Your task to perform on an android device: Open internet settings Image 0: 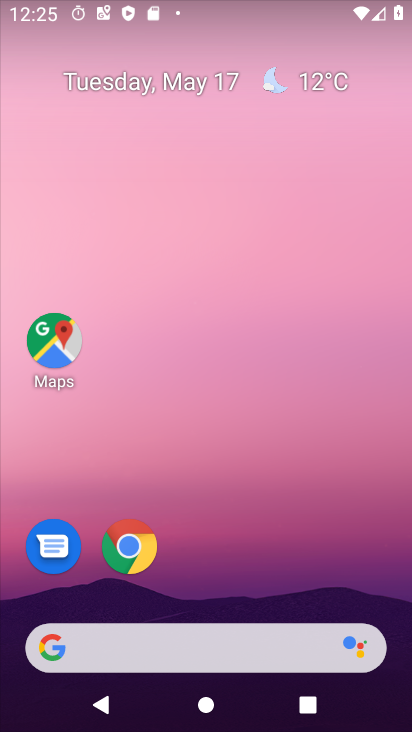
Step 0: drag from (192, 639) to (361, 50)
Your task to perform on an android device: Open internet settings Image 1: 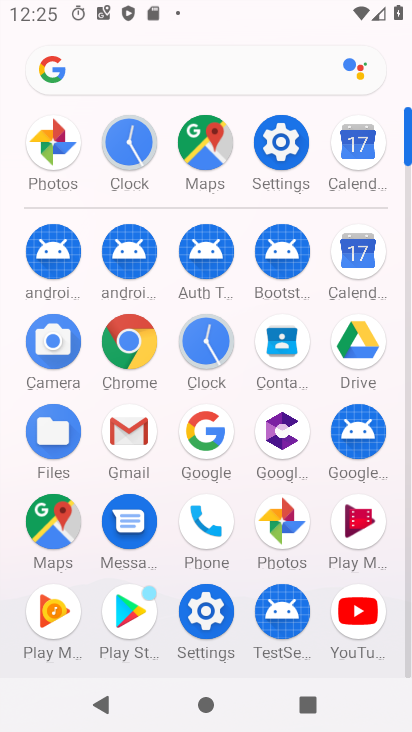
Step 1: click (282, 144)
Your task to perform on an android device: Open internet settings Image 2: 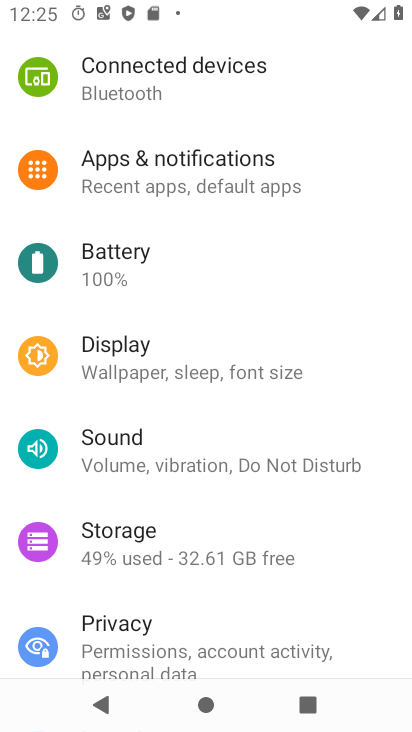
Step 2: drag from (318, 96) to (185, 424)
Your task to perform on an android device: Open internet settings Image 3: 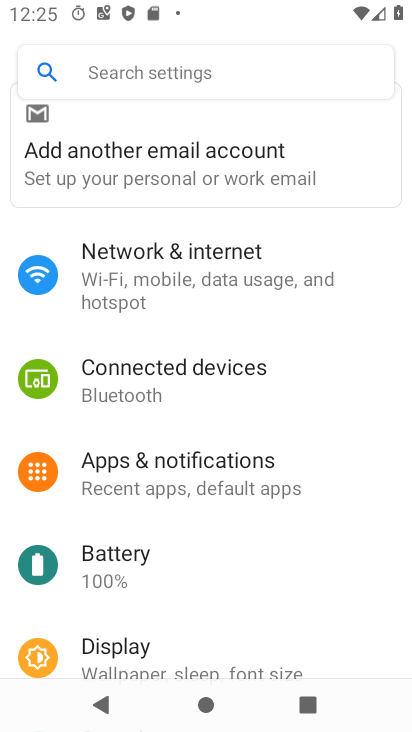
Step 3: click (236, 252)
Your task to perform on an android device: Open internet settings Image 4: 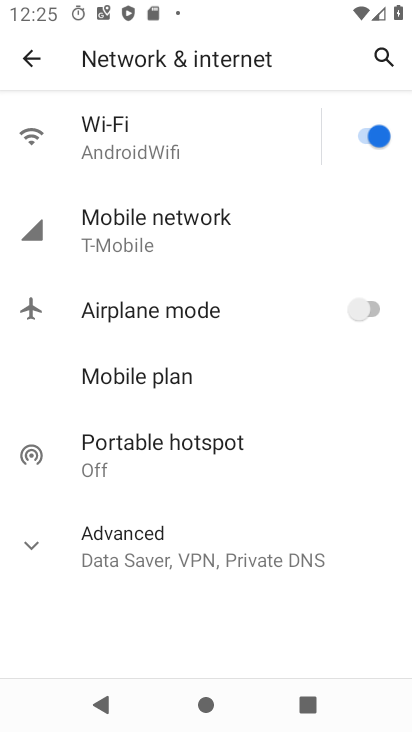
Step 4: task complete